Your task to perform on an android device: uninstall "Google Calendar" Image 0: 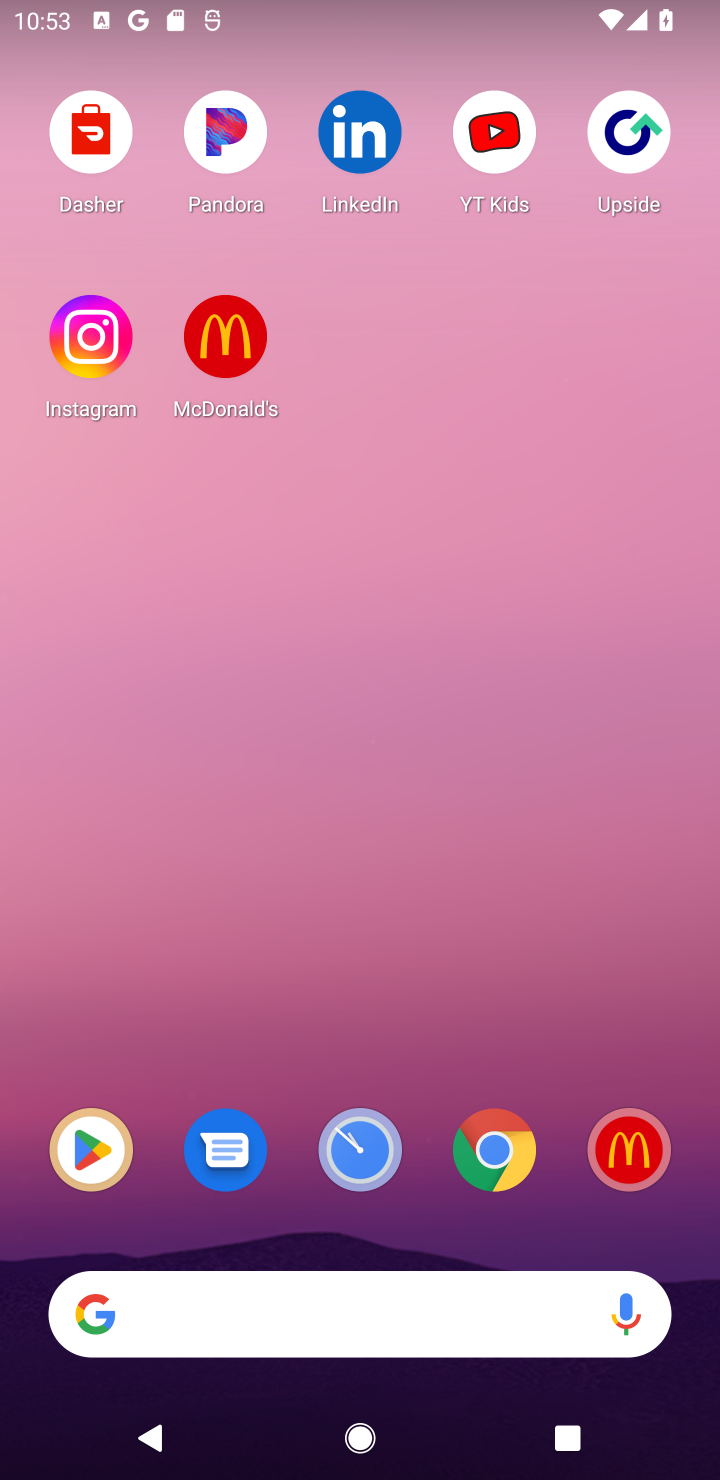
Step 0: click (85, 1127)
Your task to perform on an android device: uninstall "Google Calendar" Image 1: 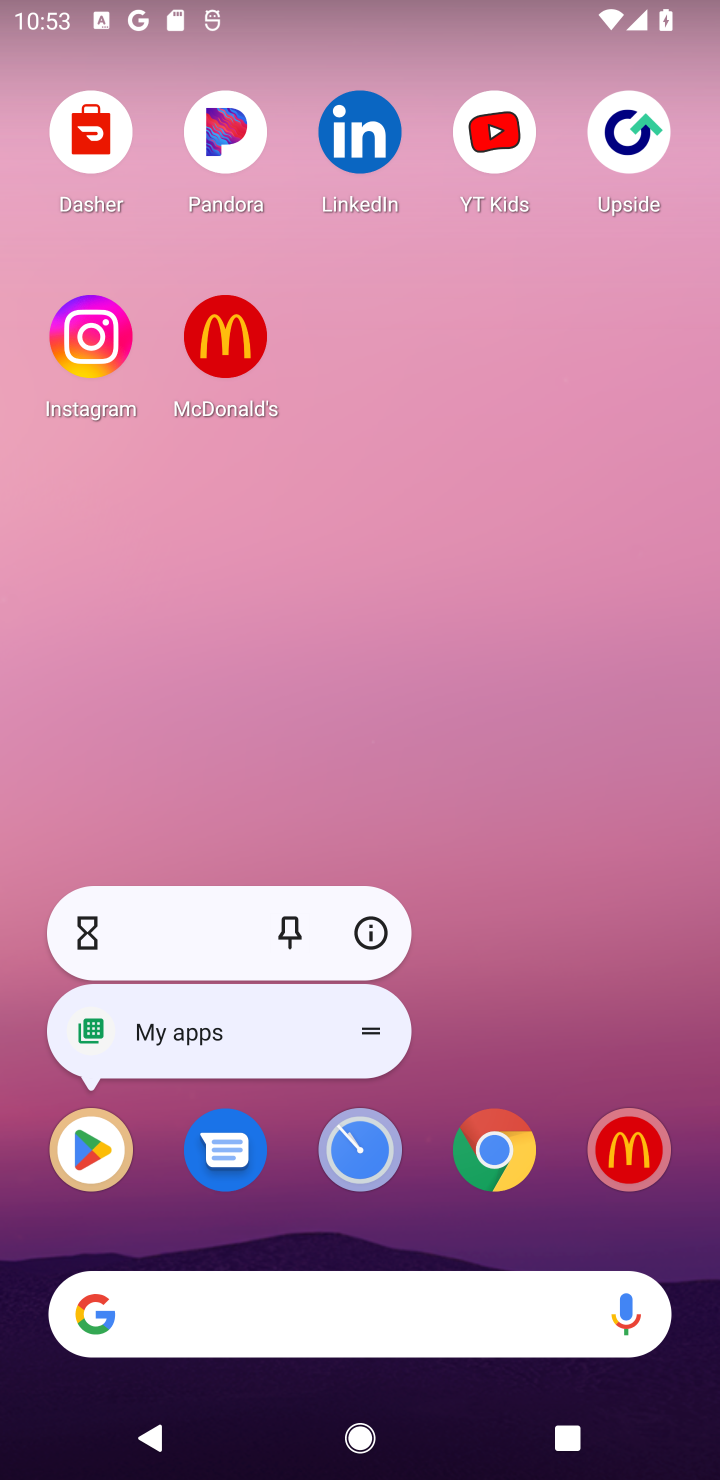
Step 1: click (99, 1146)
Your task to perform on an android device: uninstall "Google Calendar" Image 2: 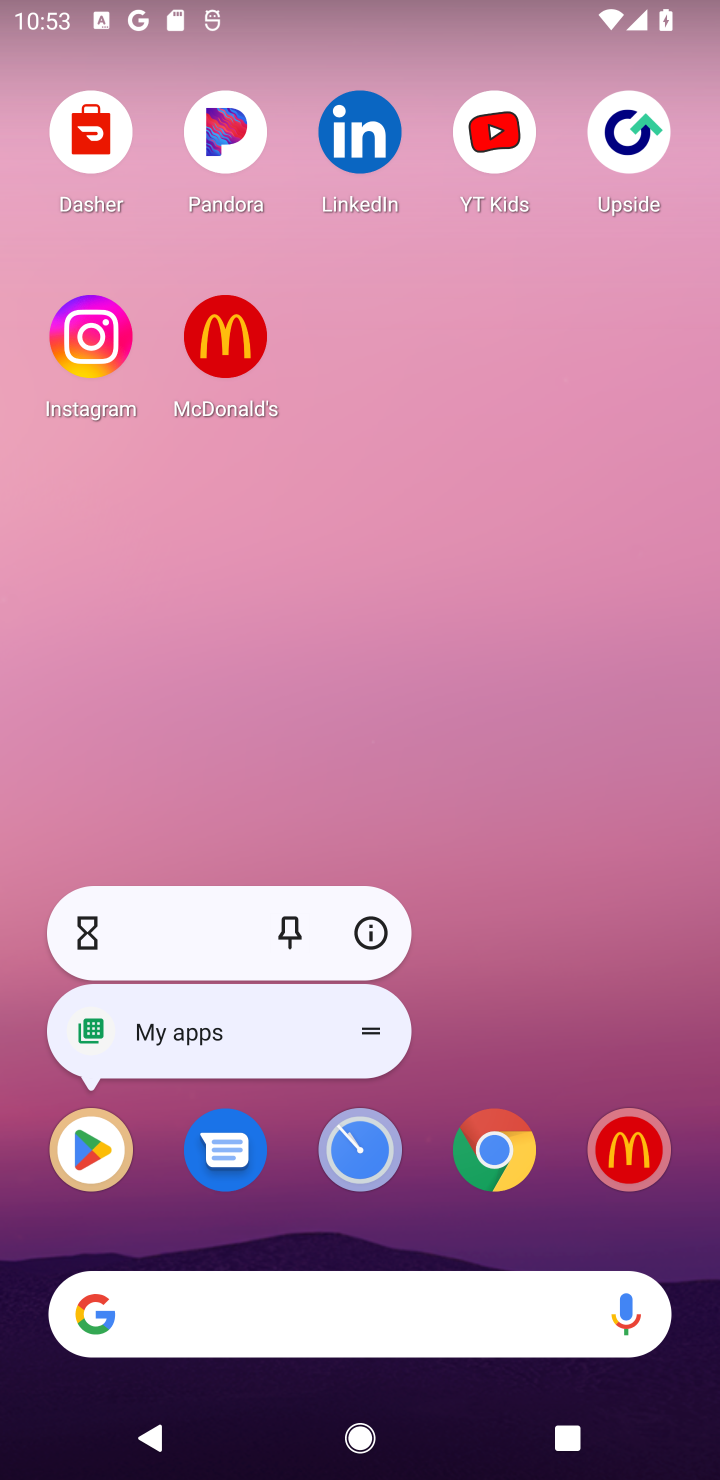
Step 2: click (95, 1152)
Your task to perform on an android device: uninstall "Google Calendar" Image 3: 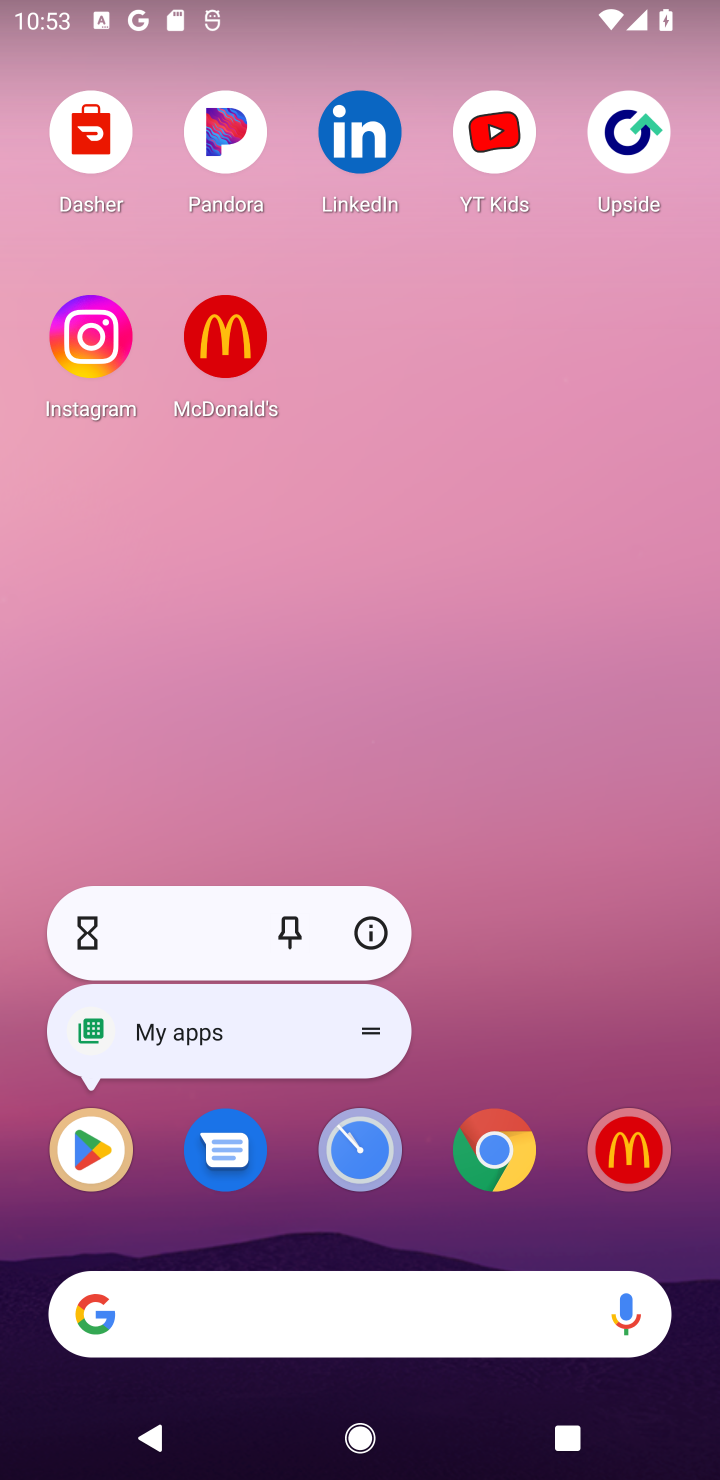
Step 3: click (95, 1152)
Your task to perform on an android device: uninstall "Google Calendar" Image 4: 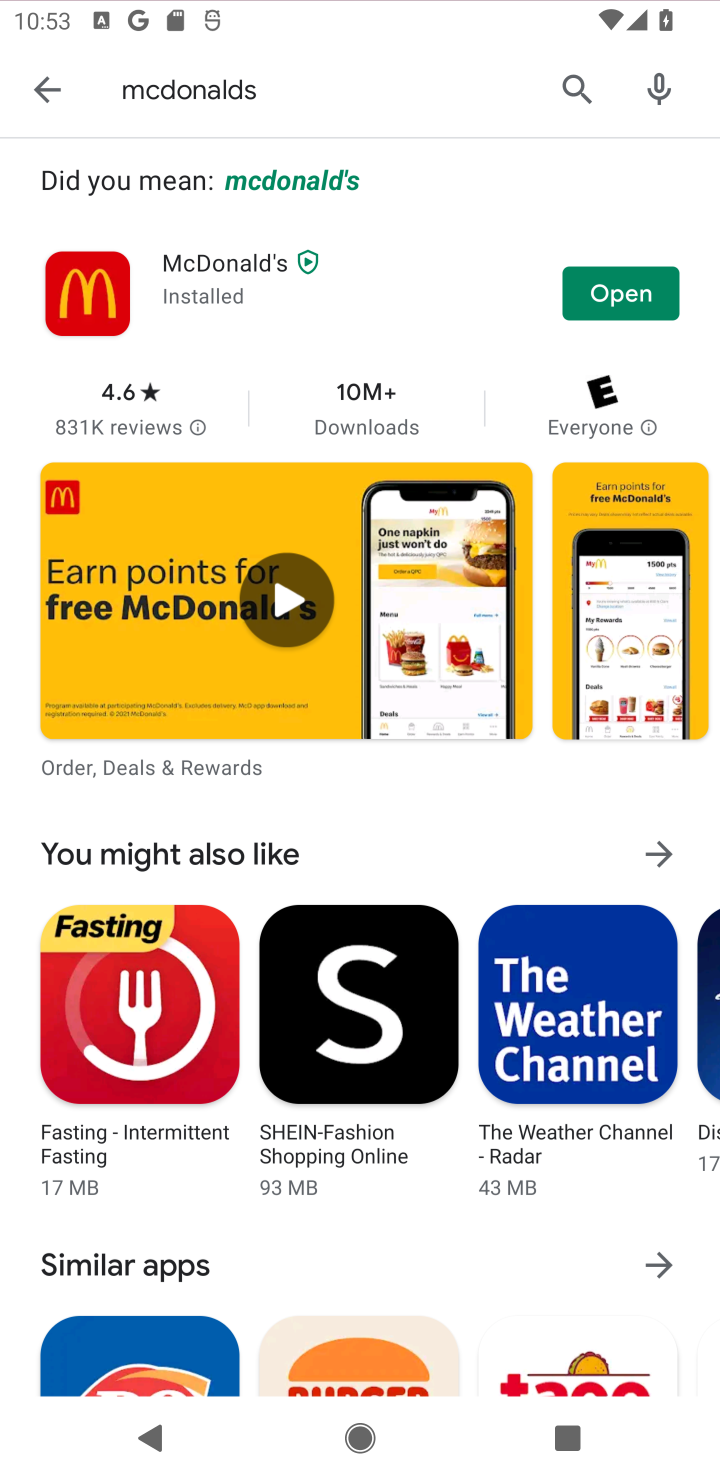
Step 4: click (88, 1154)
Your task to perform on an android device: uninstall "Google Calendar" Image 5: 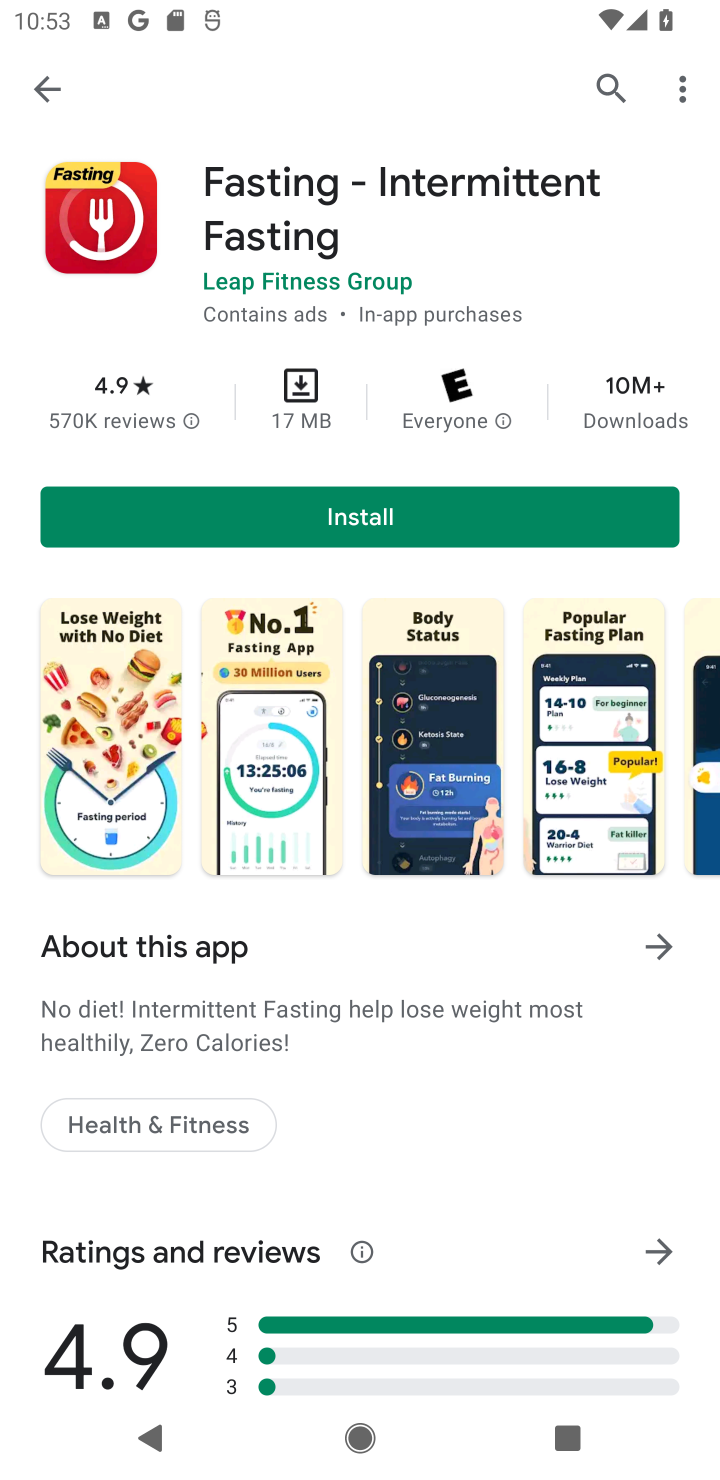
Step 5: click (606, 90)
Your task to perform on an android device: uninstall "Google Calendar" Image 6: 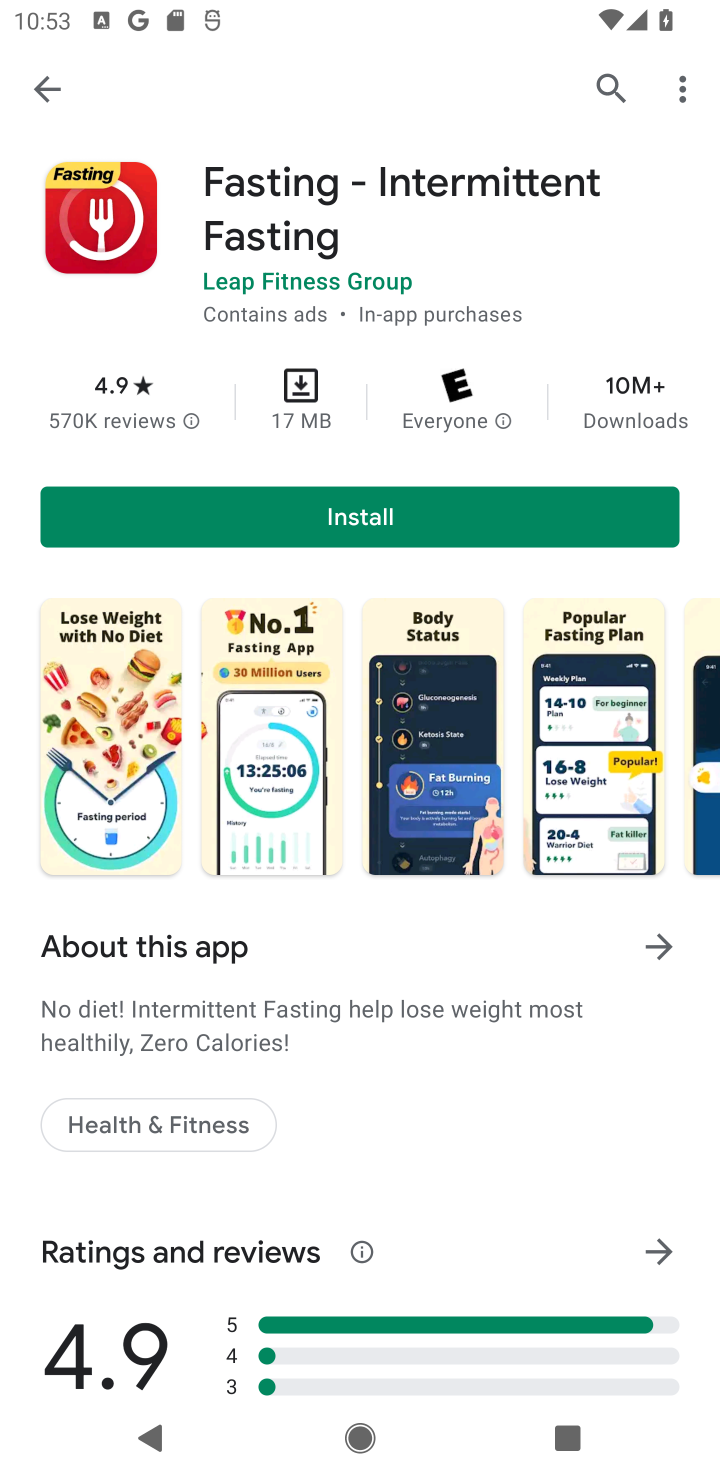
Step 6: click (616, 93)
Your task to perform on an android device: uninstall "Google Calendar" Image 7: 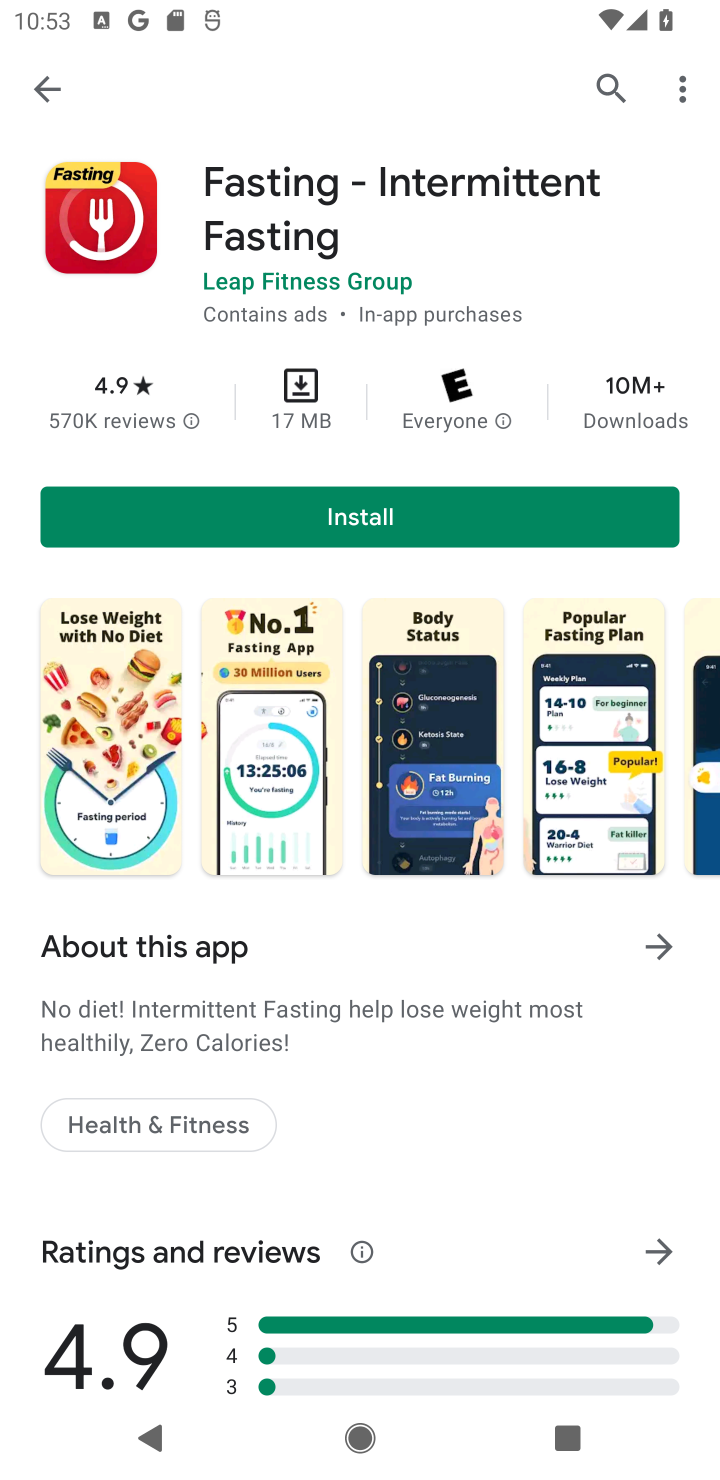
Step 7: click (602, 87)
Your task to perform on an android device: uninstall "Google Calendar" Image 8: 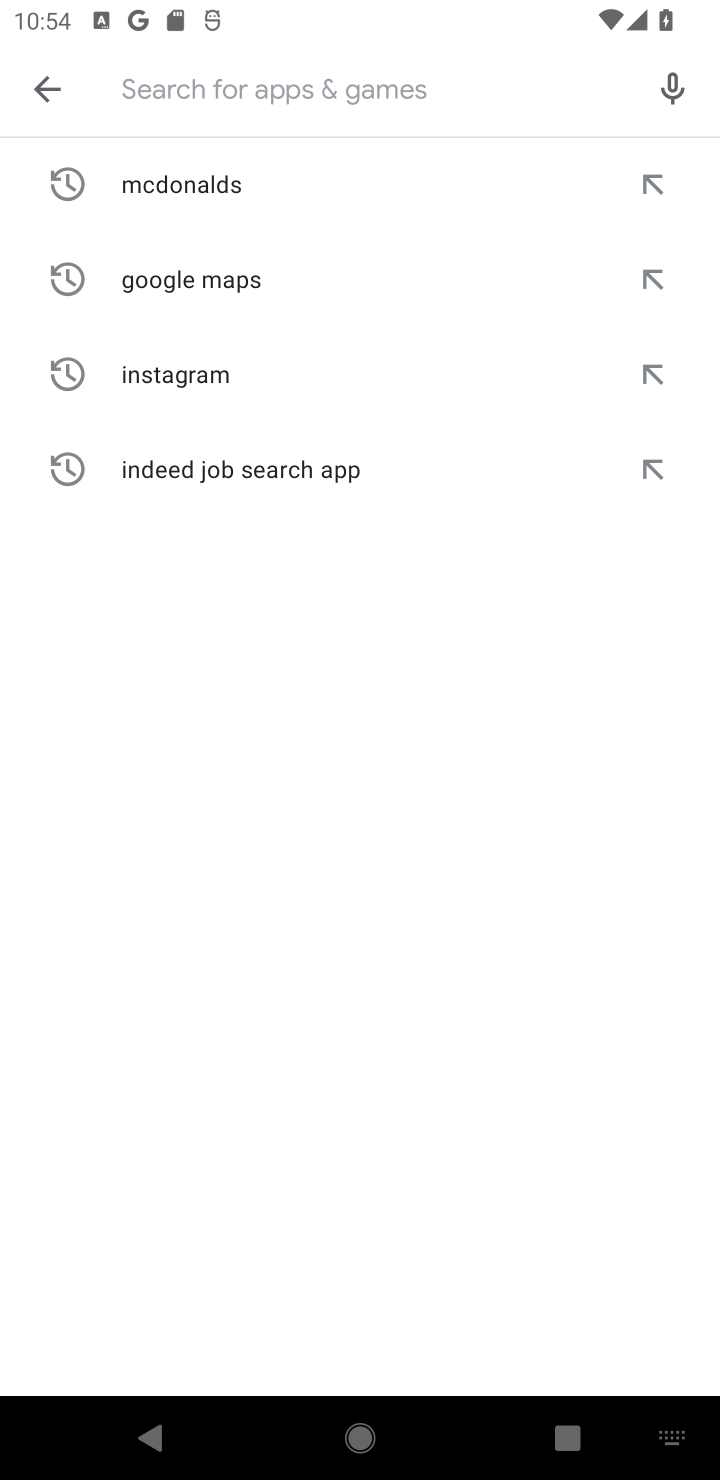
Step 8: type "google caledre"
Your task to perform on an android device: uninstall "Google Calendar" Image 9: 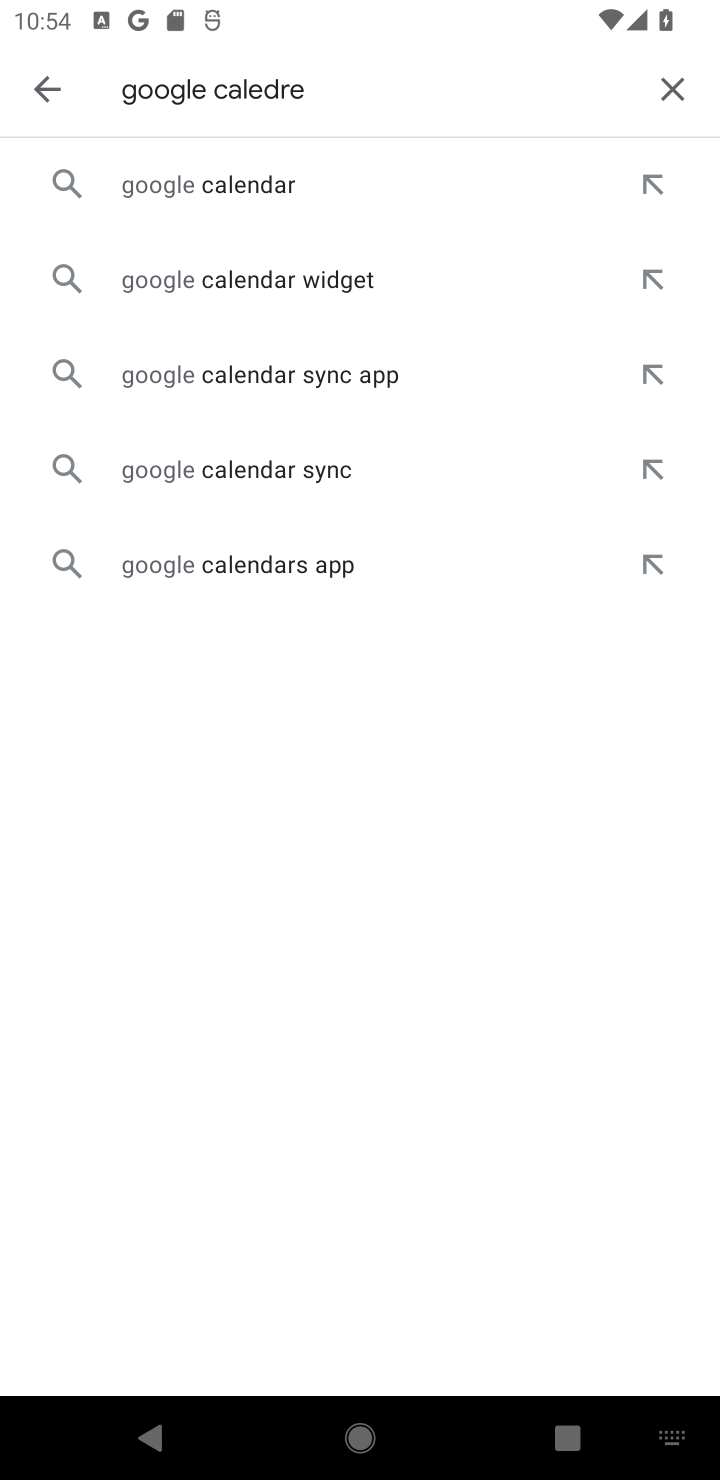
Step 9: click (306, 177)
Your task to perform on an android device: uninstall "Google Calendar" Image 10: 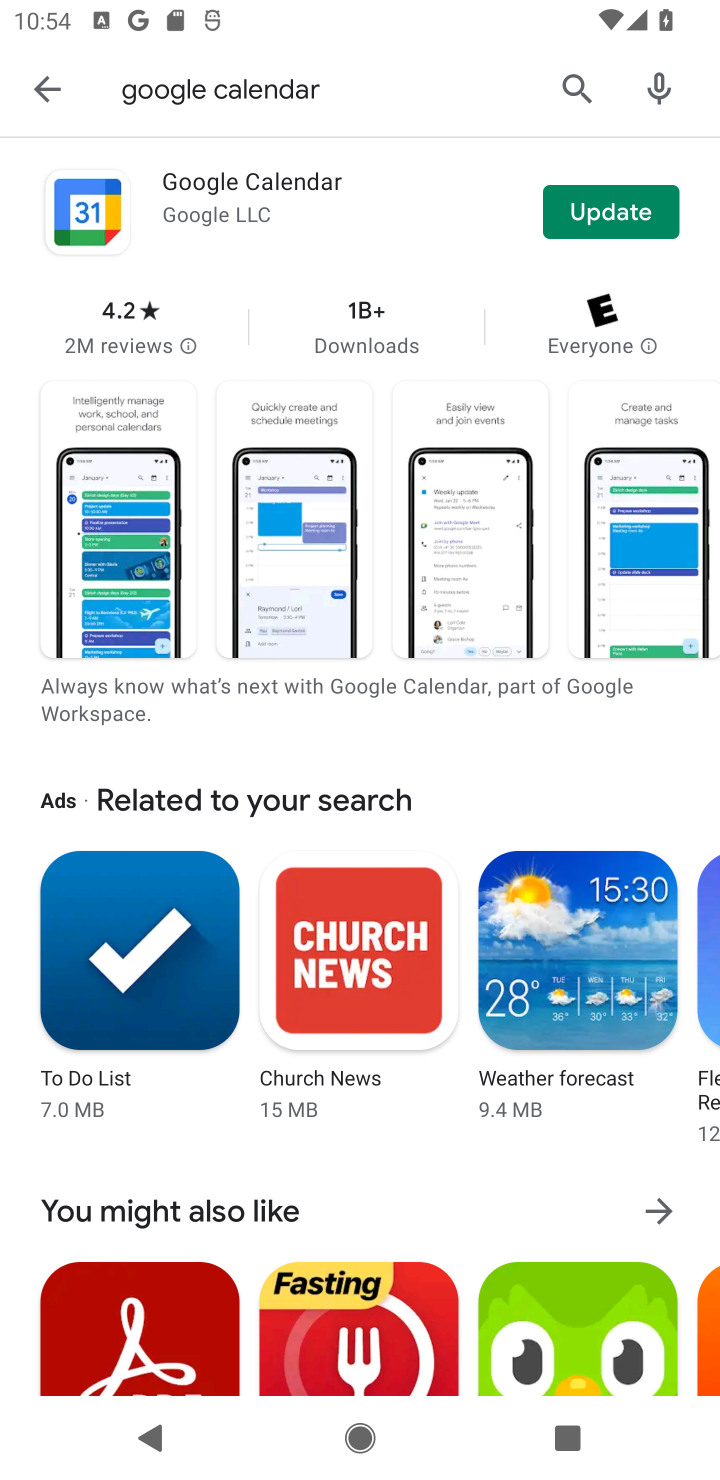
Step 10: click (305, 215)
Your task to perform on an android device: uninstall "Google Calendar" Image 11: 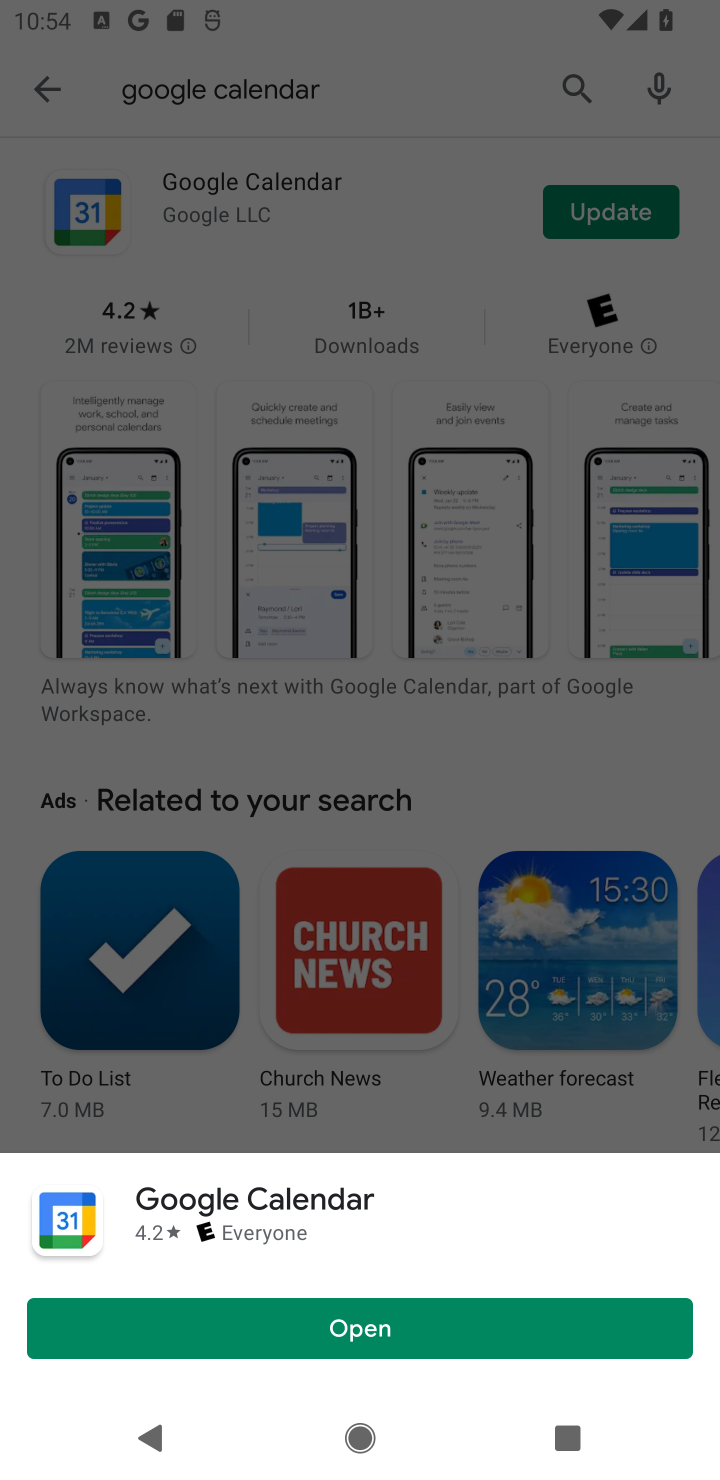
Step 11: task complete